Your task to perform on an android device: change timer sound Image 0: 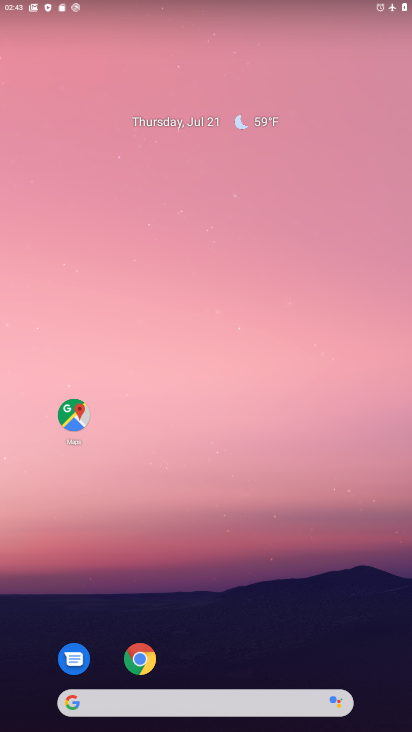
Step 0: drag from (298, 462) to (265, 91)
Your task to perform on an android device: change timer sound Image 1: 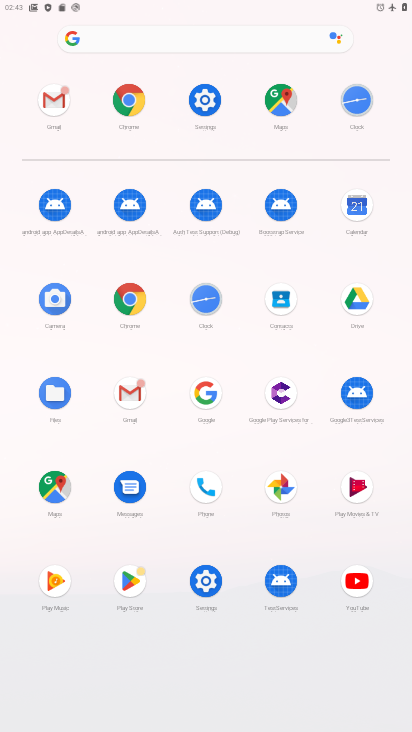
Step 1: click (208, 301)
Your task to perform on an android device: change timer sound Image 2: 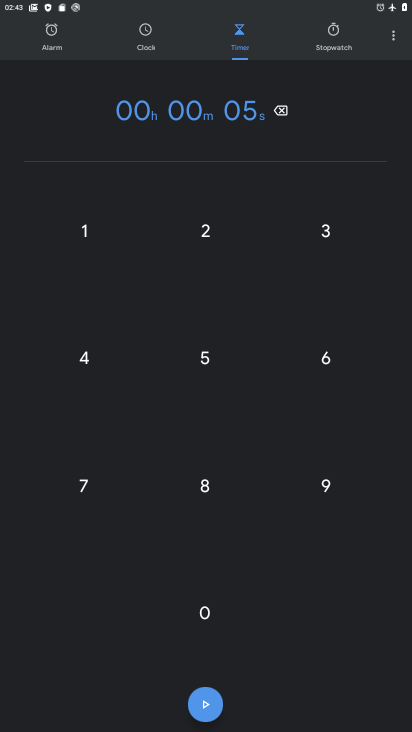
Step 2: drag from (394, 28) to (375, 85)
Your task to perform on an android device: change timer sound Image 3: 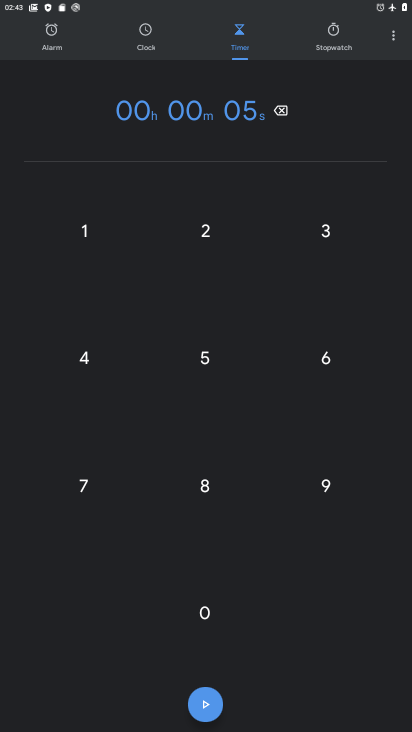
Step 3: click (395, 34)
Your task to perform on an android device: change timer sound Image 4: 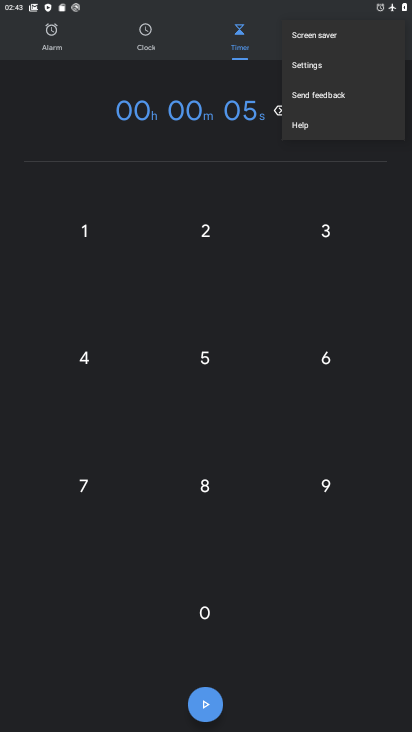
Step 4: click (328, 73)
Your task to perform on an android device: change timer sound Image 5: 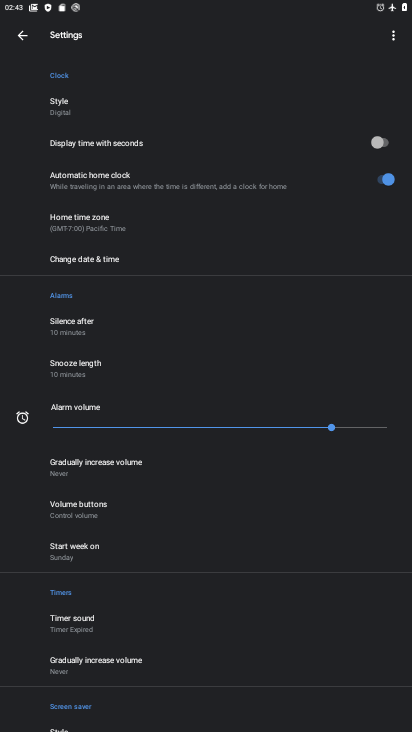
Step 5: click (73, 636)
Your task to perform on an android device: change timer sound Image 6: 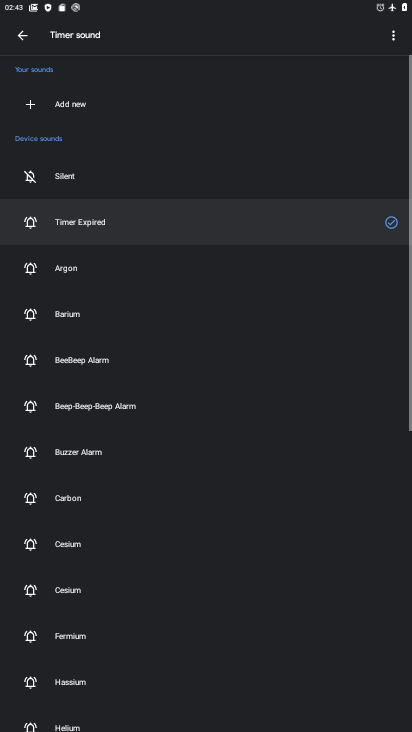
Step 6: click (183, 279)
Your task to perform on an android device: change timer sound Image 7: 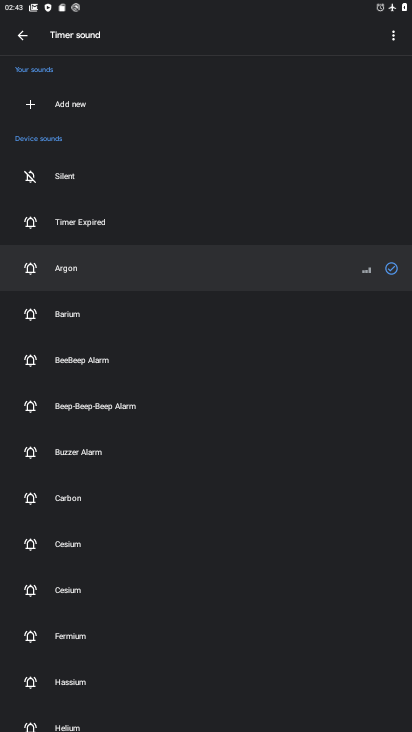
Step 7: task complete